Your task to perform on an android device: Go to Wikipedia Image 0: 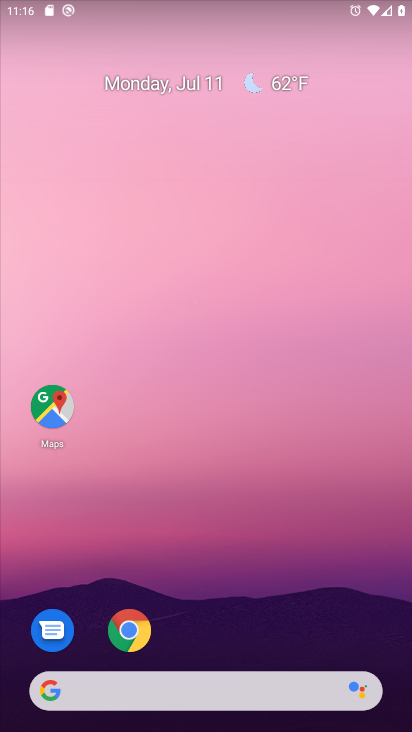
Step 0: click (136, 633)
Your task to perform on an android device: Go to Wikipedia Image 1: 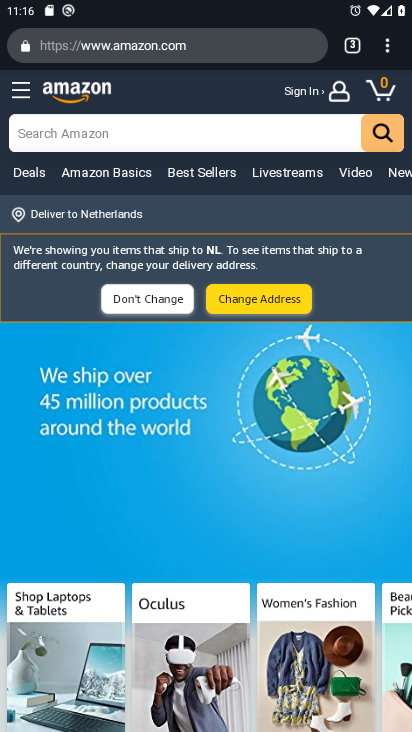
Step 1: click (383, 47)
Your task to perform on an android device: Go to Wikipedia Image 2: 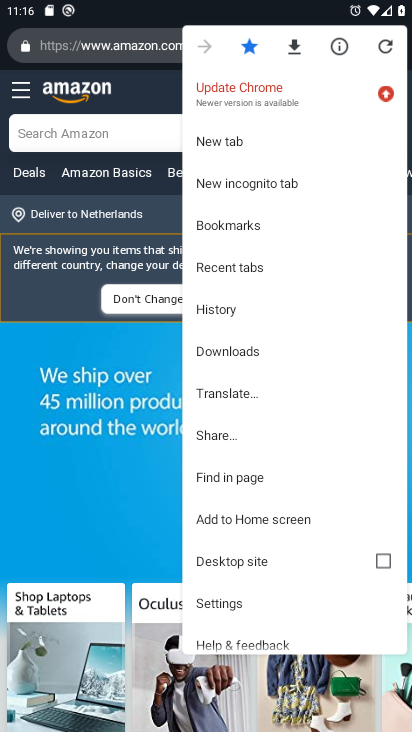
Step 2: click (234, 137)
Your task to perform on an android device: Go to Wikipedia Image 3: 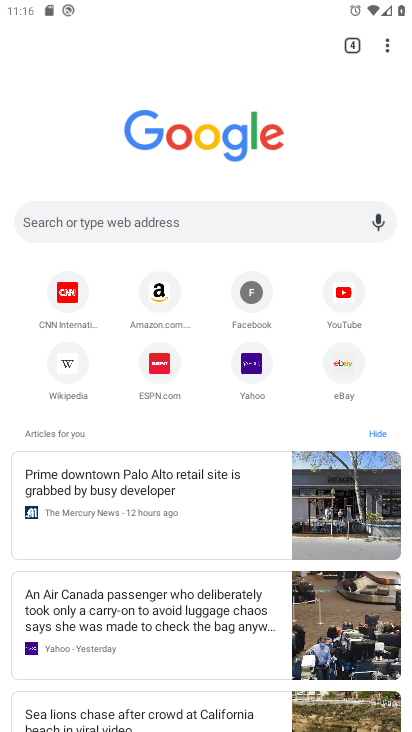
Step 3: click (61, 368)
Your task to perform on an android device: Go to Wikipedia Image 4: 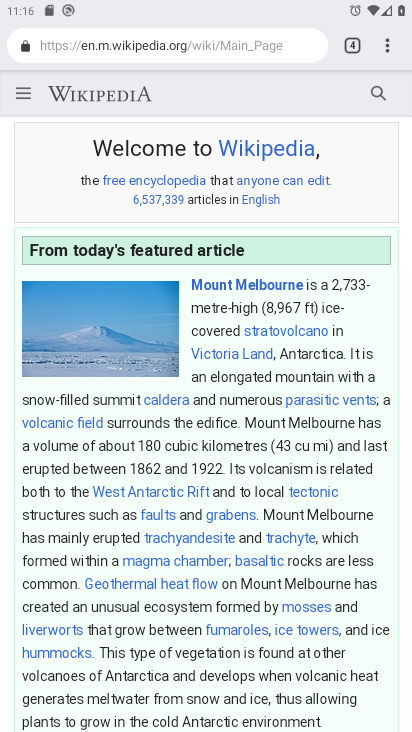
Step 4: task complete